Your task to perform on an android device: Search for Mexican restaurants on Maps Image 0: 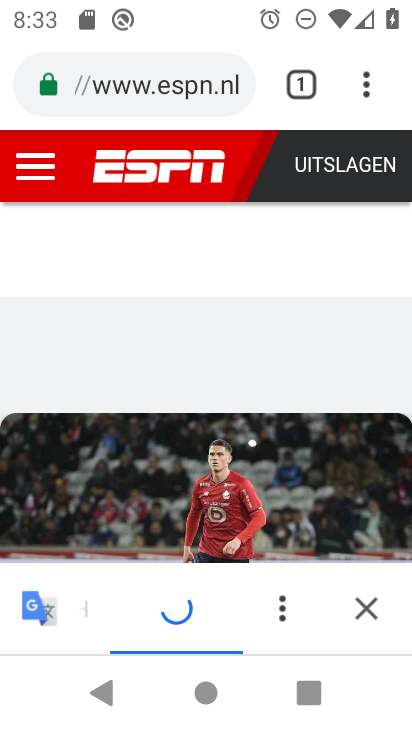
Step 0: press home button
Your task to perform on an android device: Search for Mexican restaurants on Maps Image 1: 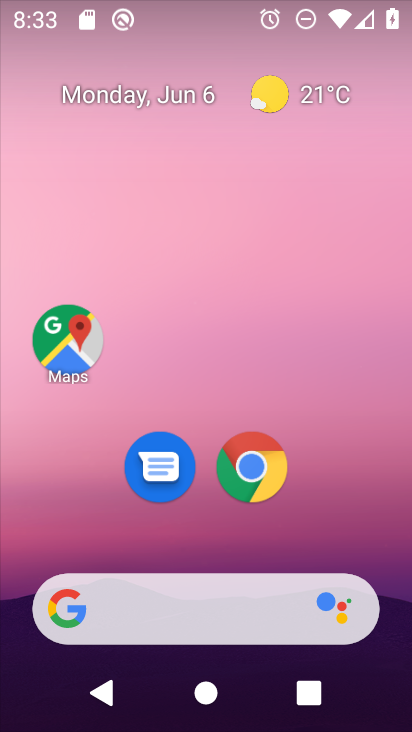
Step 1: drag from (346, 521) to (370, 139)
Your task to perform on an android device: Search for Mexican restaurants on Maps Image 2: 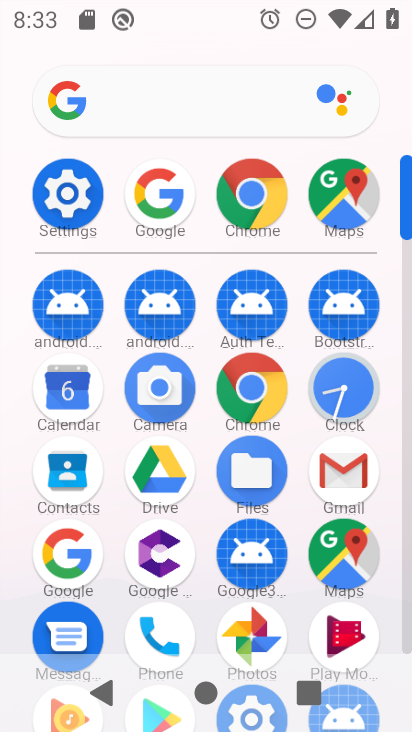
Step 2: click (342, 560)
Your task to perform on an android device: Search for Mexican restaurants on Maps Image 3: 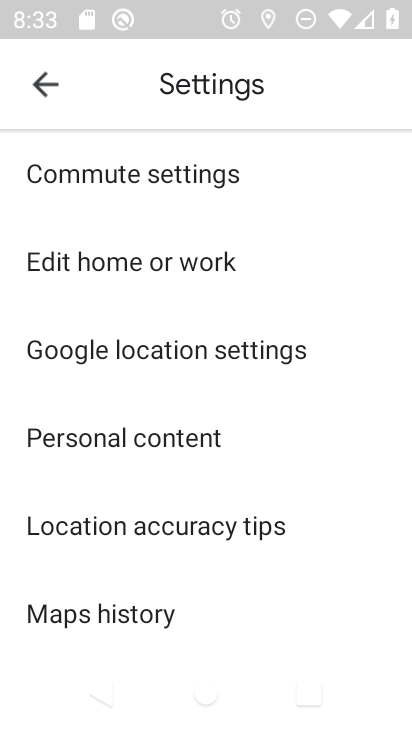
Step 3: press back button
Your task to perform on an android device: Search for Mexican restaurants on Maps Image 4: 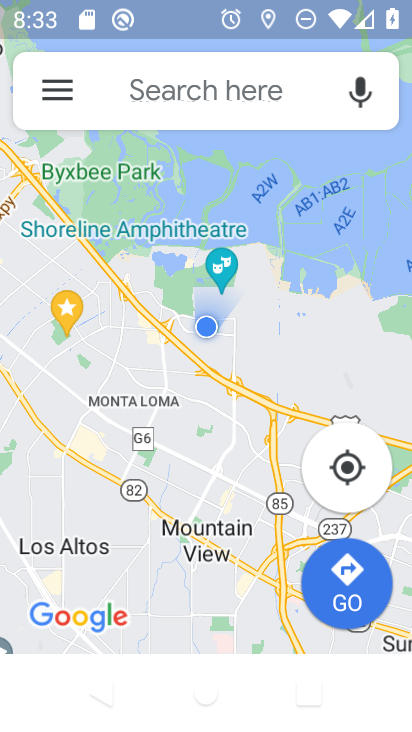
Step 4: click (256, 110)
Your task to perform on an android device: Search for Mexican restaurants on Maps Image 5: 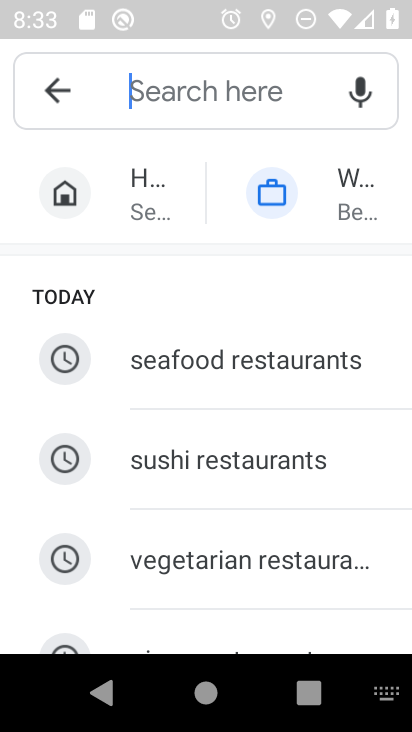
Step 5: type "mexcian restaurants"
Your task to perform on an android device: Search for Mexican restaurants on Maps Image 6: 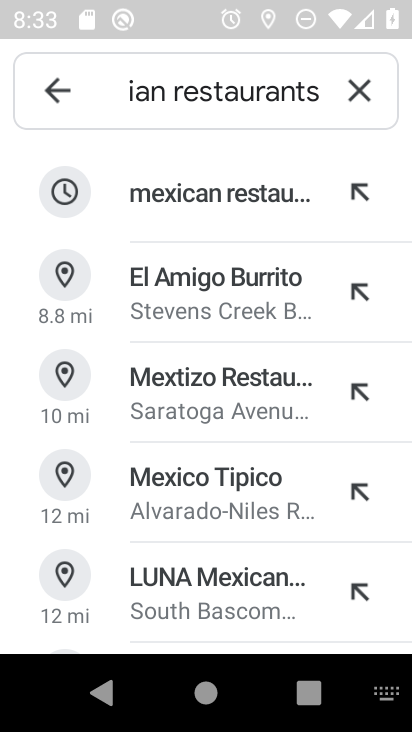
Step 6: click (253, 189)
Your task to perform on an android device: Search for Mexican restaurants on Maps Image 7: 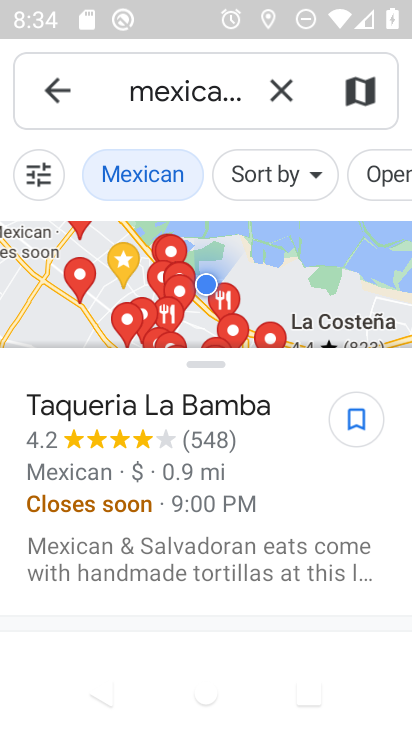
Step 7: task complete